Your task to perform on an android device: turn off data saver in the chrome app Image 0: 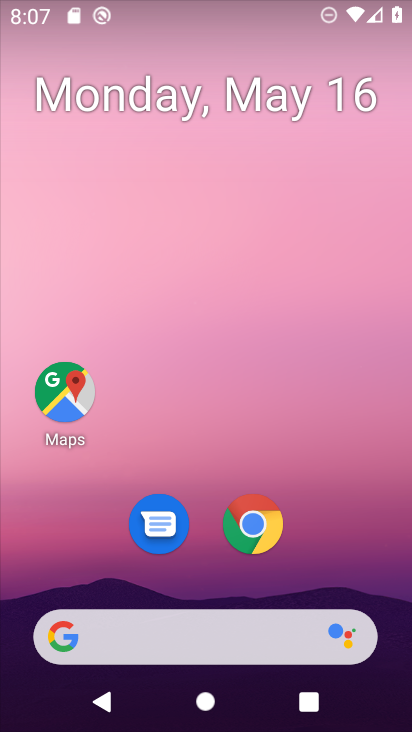
Step 0: click (250, 522)
Your task to perform on an android device: turn off data saver in the chrome app Image 1: 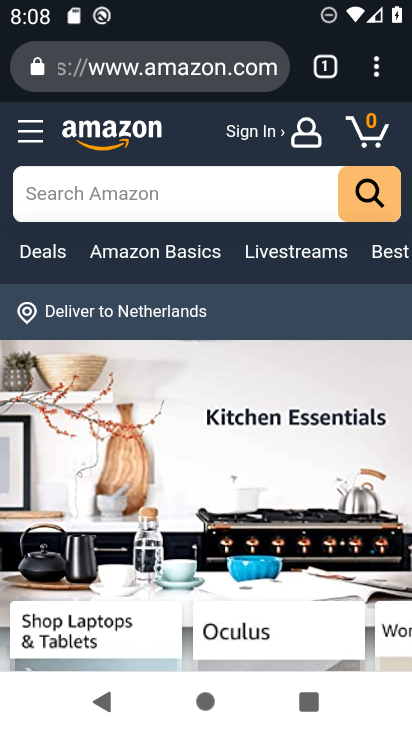
Step 1: click (378, 68)
Your task to perform on an android device: turn off data saver in the chrome app Image 2: 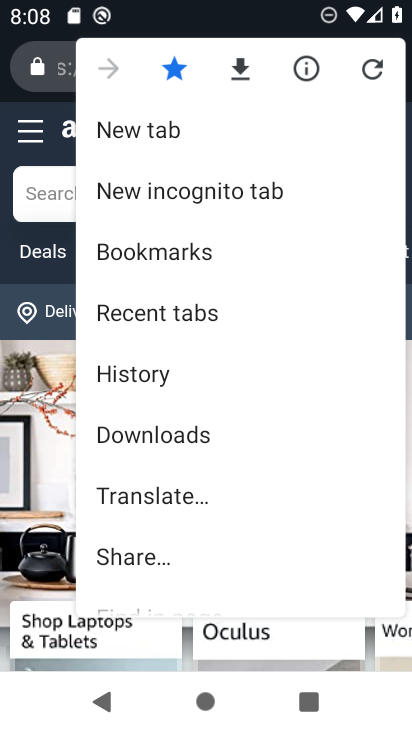
Step 2: drag from (275, 379) to (294, 120)
Your task to perform on an android device: turn off data saver in the chrome app Image 3: 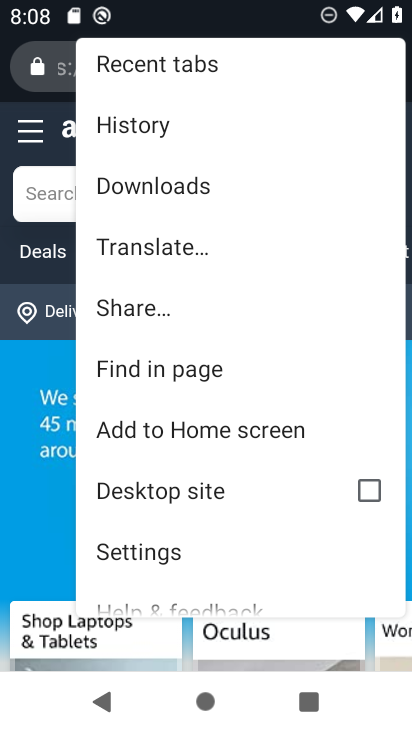
Step 3: click (183, 554)
Your task to perform on an android device: turn off data saver in the chrome app Image 4: 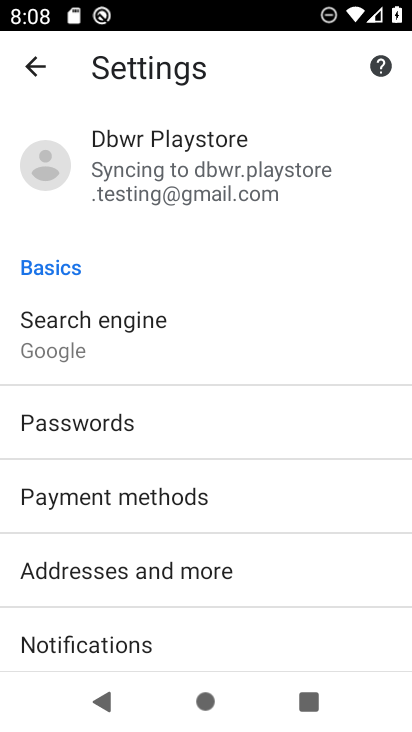
Step 4: drag from (260, 477) to (242, 109)
Your task to perform on an android device: turn off data saver in the chrome app Image 5: 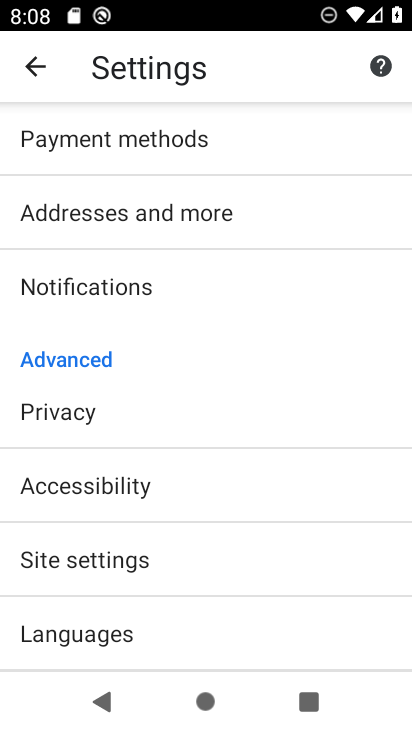
Step 5: drag from (207, 500) to (226, 183)
Your task to perform on an android device: turn off data saver in the chrome app Image 6: 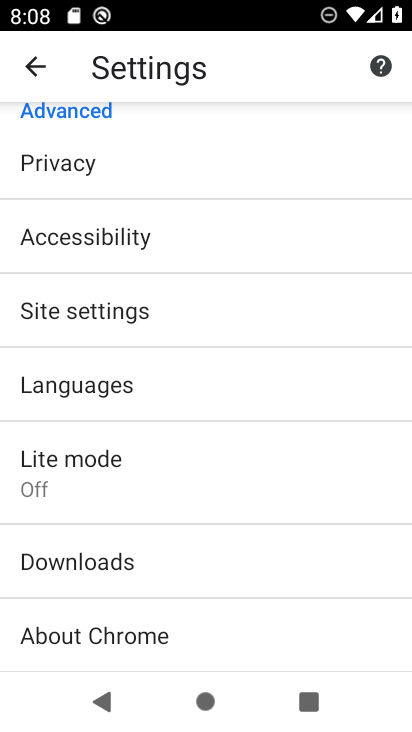
Step 6: click (161, 492)
Your task to perform on an android device: turn off data saver in the chrome app Image 7: 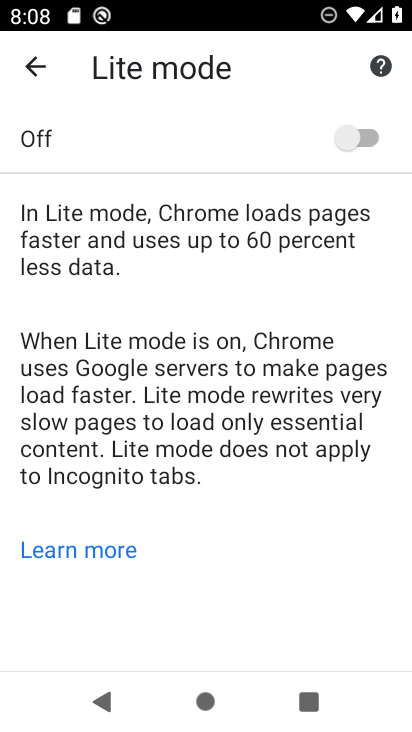
Step 7: task complete